Your task to perform on an android device: What's on my calendar tomorrow? Image 0: 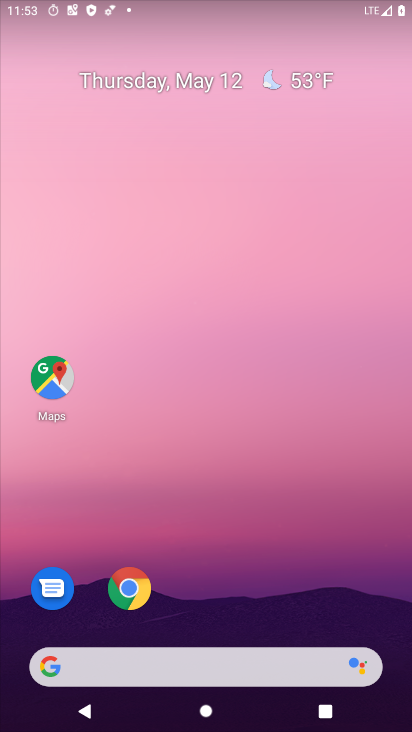
Step 0: drag from (228, 591) to (233, 57)
Your task to perform on an android device: What's on my calendar tomorrow? Image 1: 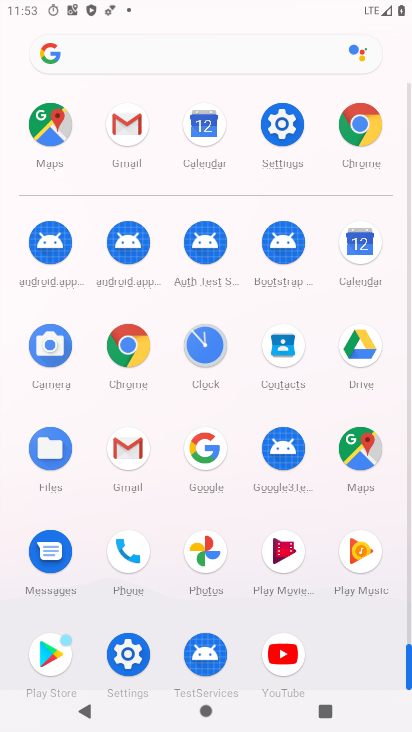
Step 1: click (356, 254)
Your task to perform on an android device: What's on my calendar tomorrow? Image 2: 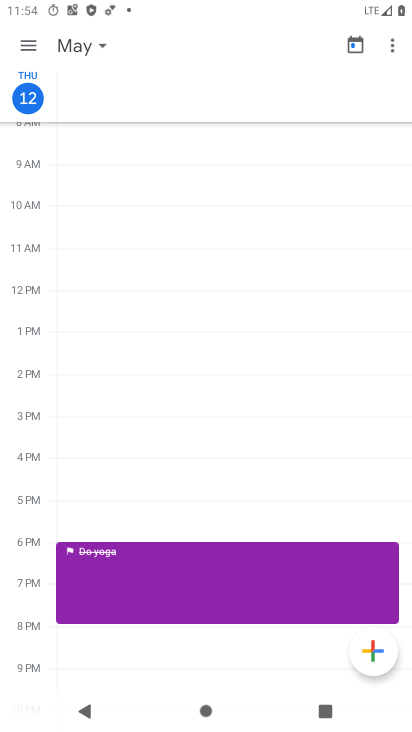
Step 2: click (61, 52)
Your task to perform on an android device: What's on my calendar tomorrow? Image 3: 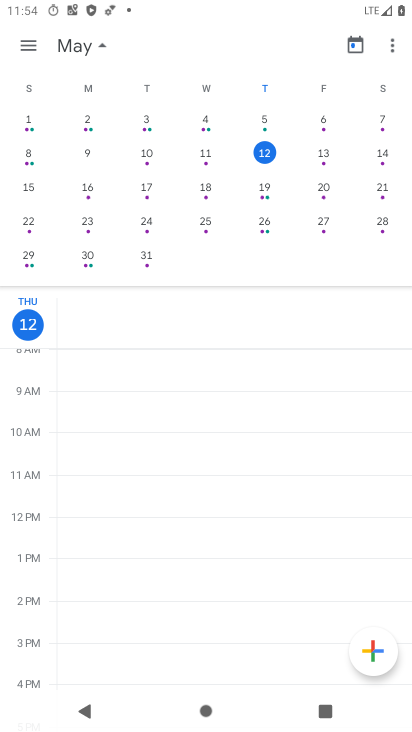
Step 3: click (321, 156)
Your task to perform on an android device: What's on my calendar tomorrow? Image 4: 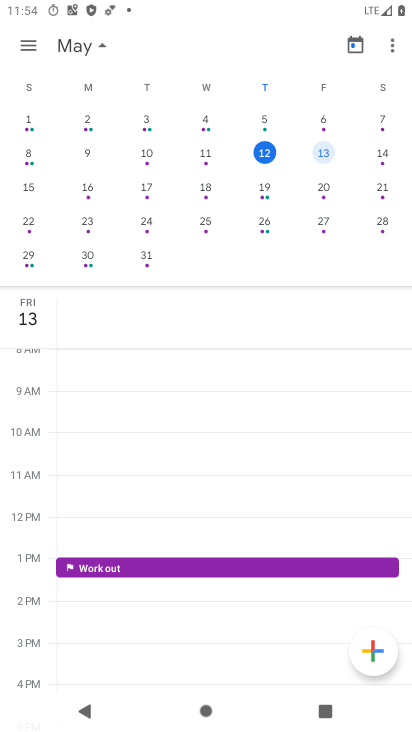
Step 4: task complete